Your task to perform on an android device: Open calendar and show me the third week of next month Image 0: 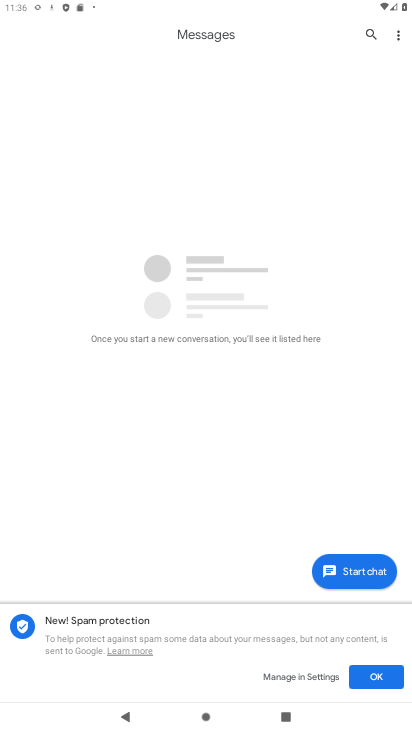
Step 0: press back button
Your task to perform on an android device: Open calendar and show me the third week of next month Image 1: 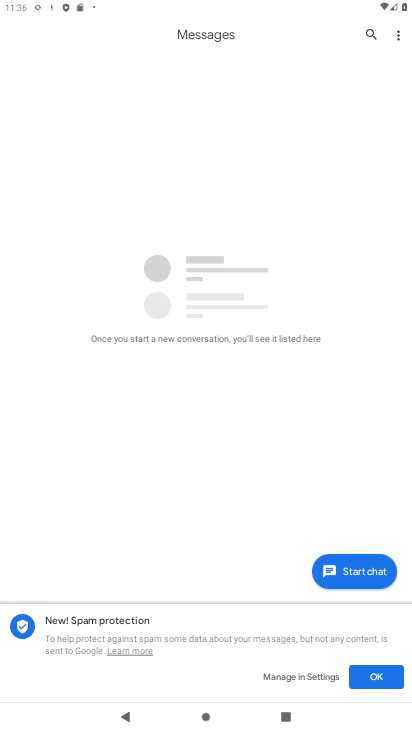
Step 1: press back button
Your task to perform on an android device: Open calendar and show me the third week of next month Image 2: 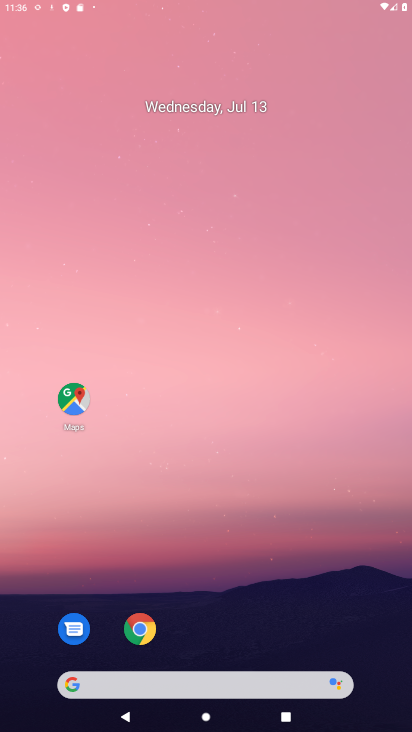
Step 2: press back button
Your task to perform on an android device: Open calendar and show me the third week of next month Image 3: 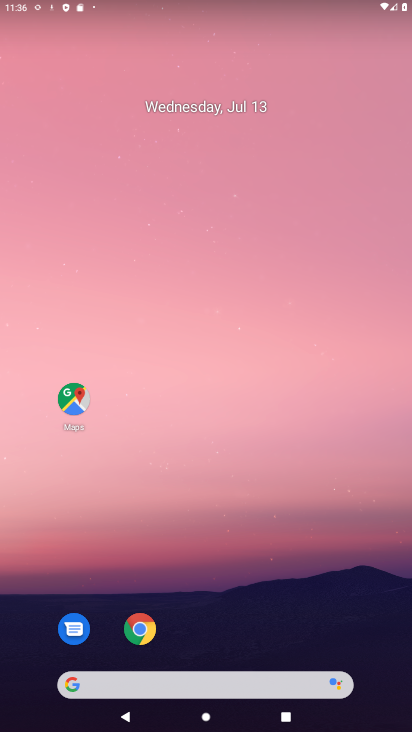
Step 3: drag from (240, 582) to (197, 101)
Your task to perform on an android device: Open calendar and show me the third week of next month Image 4: 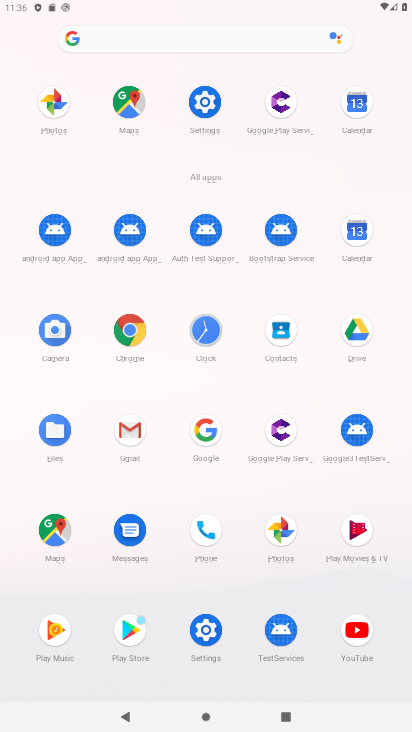
Step 4: click (354, 233)
Your task to perform on an android device: Open calendar and show me the third week of next month Image 5: 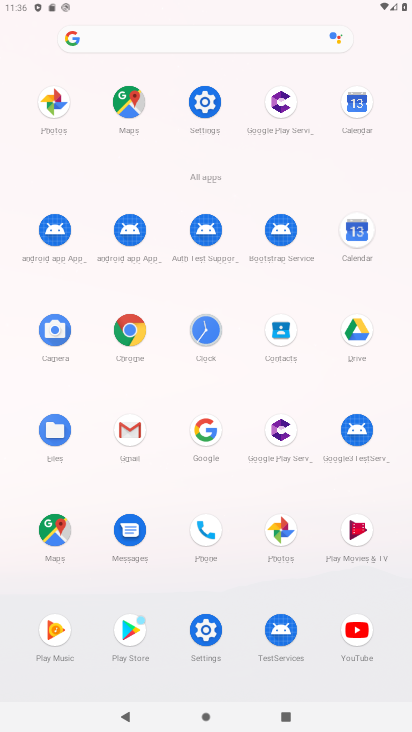
Step 5: click (357, 228)
Your task to perform on an android device: Open calendar and show me the third week of next month Image 6: 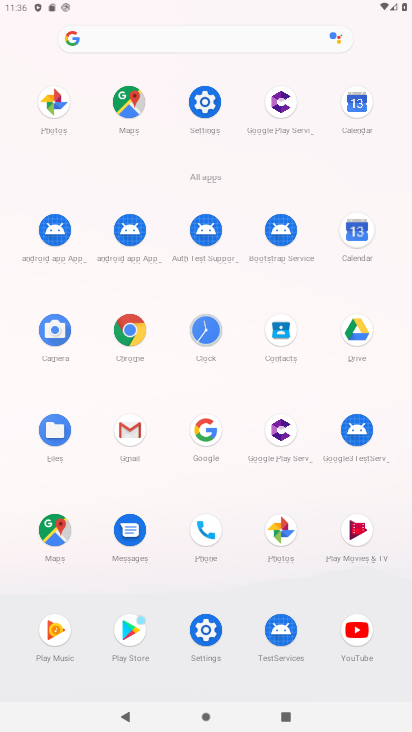
Step 6: click (357, 228)
Your task to perform on an android device: Open calendar and show me the third week of next month Image 7: 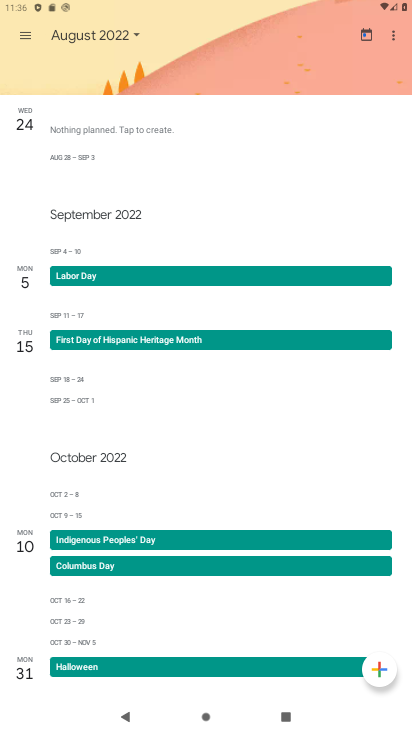
Step 7: click (357, 228)
Your task to perform on an android device: Open calendar and show me the third week of next month Image 8: 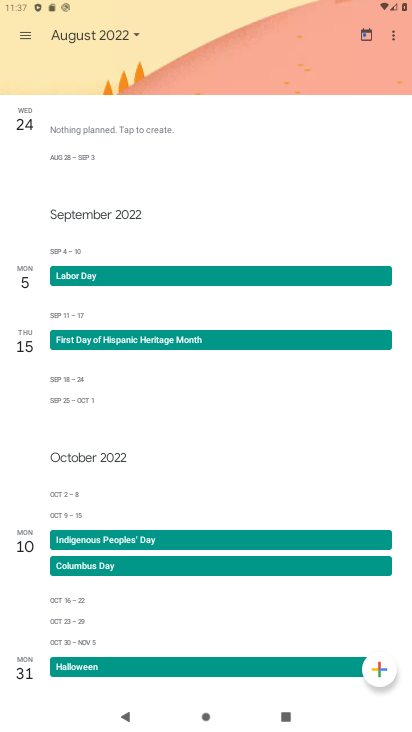
Step 8: click (134, 33)
Your task to perform on an android device: Open calendar and show me the third week of next month Image 9: 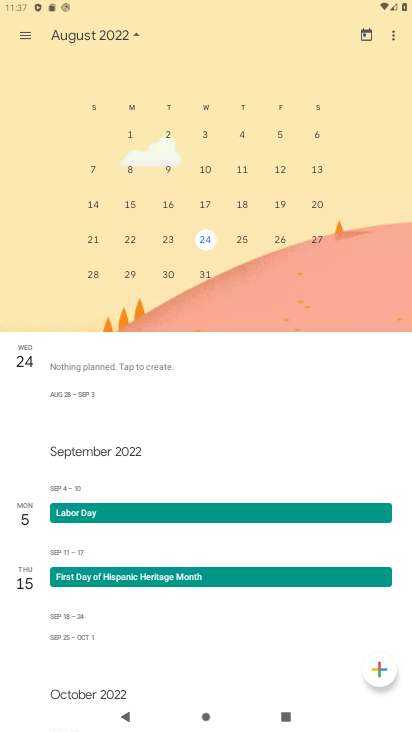
Step 9: click (206, 200)
Your task to perform on an android device: Open calendar and show me the third week of next month Image 10: 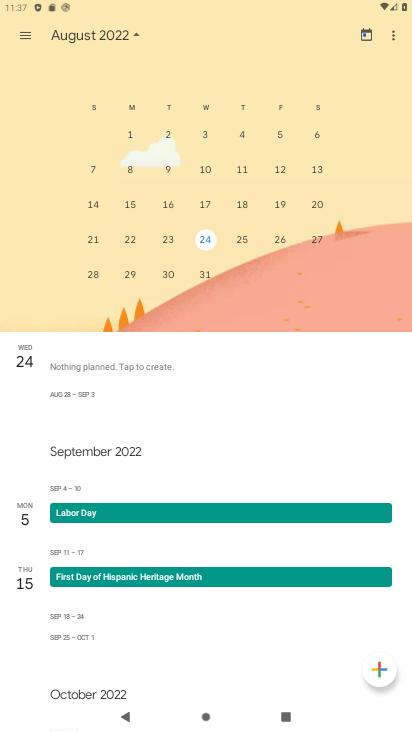
Step 10: click (206, 200)
Your task to perform on an android device: Open calendar and show me the third week of next month Image 11: 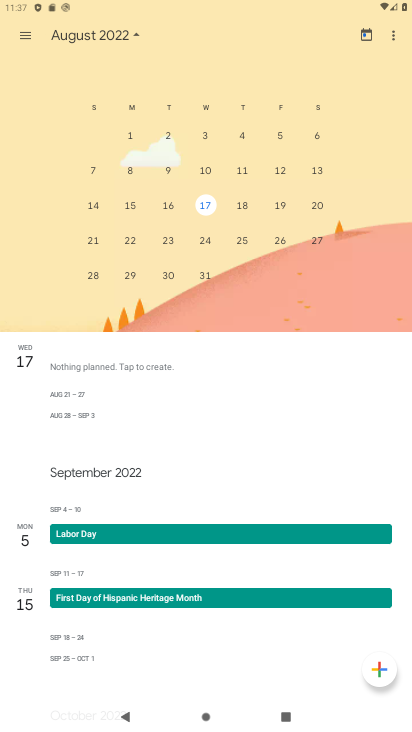
Step 11: click (206, 200)
Your task to perform on an android device: Open calendar and show me the third week of next month Image 12: 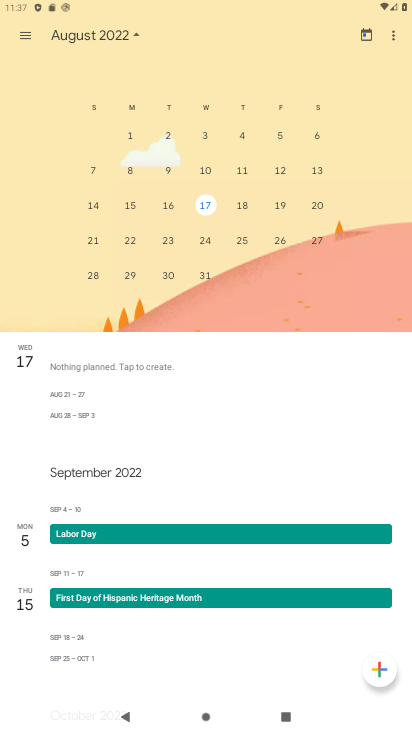
Step 12: click (206, 201)
Your task to perform on an android device: Open calendar and show me the third week of next month Image 13: 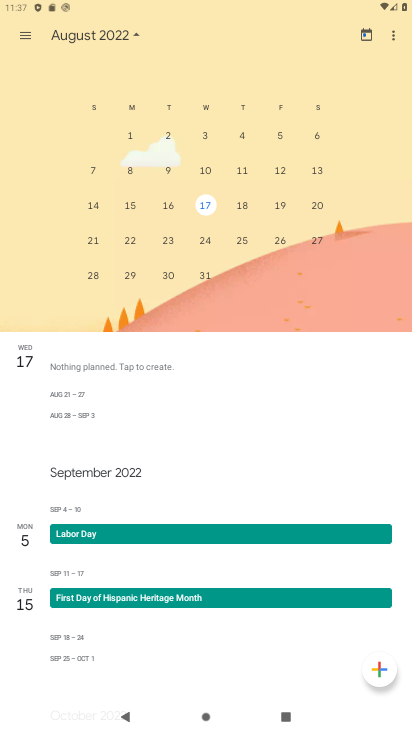
Step 13: task complete